Your task to perform on an android device: check battery use Image 0: 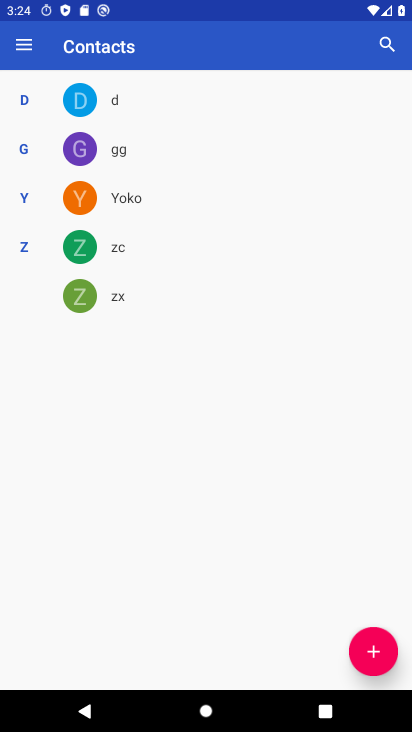
Step 0: press home button
Your task to perform on an android device: check battery use Image 1: 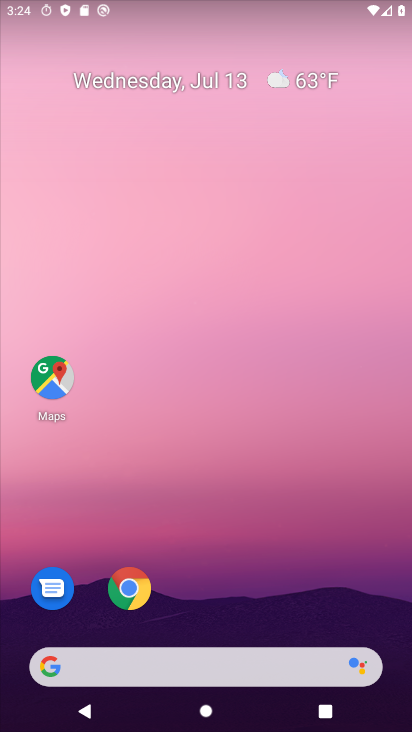
Step 1: drag from (260, 387) to (315, 104)
Your task to perform on an android device: check battery use Image 2: 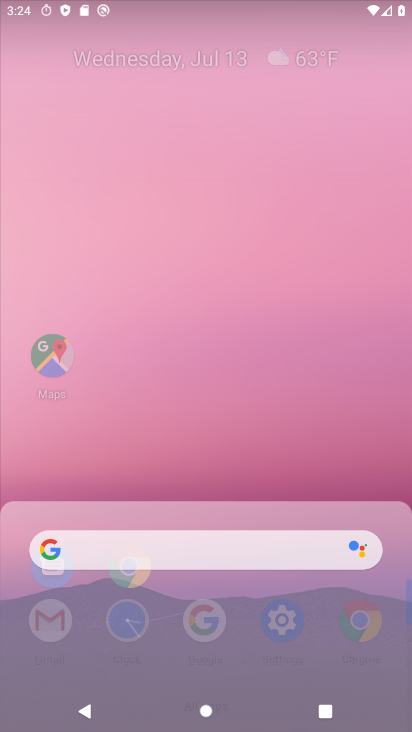
Step 2: drag from (268, 532) to (260, 140)
Your task to perform on an android device: check battery use Image 3: 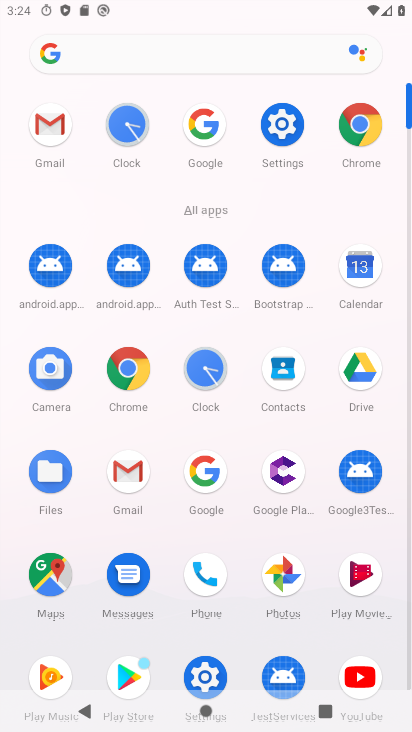
Step 3: drag from (281, 591) to (231, 183)
Your task to perform on an android device: check battery use Image 4: 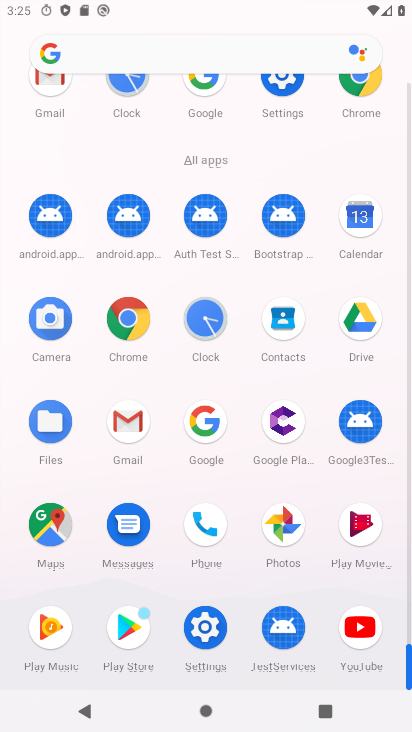
Step 4: drag from (277, 173) to (266, 464)
Your task to perform on an android device: check battery use Image 5: 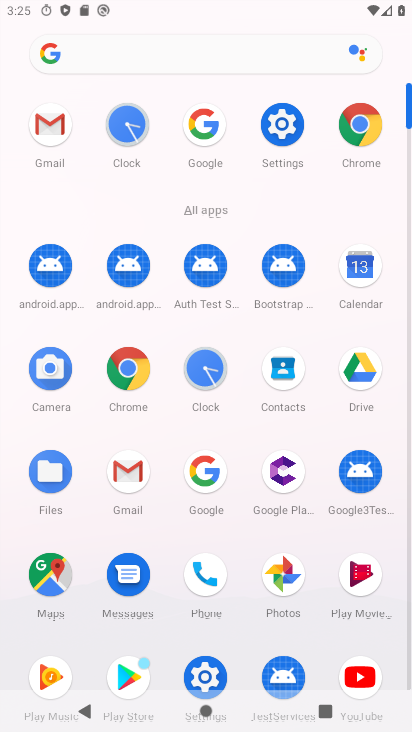
Step 5: click (290, 163)
Your task to perform on an android device: check battery use Image 6: 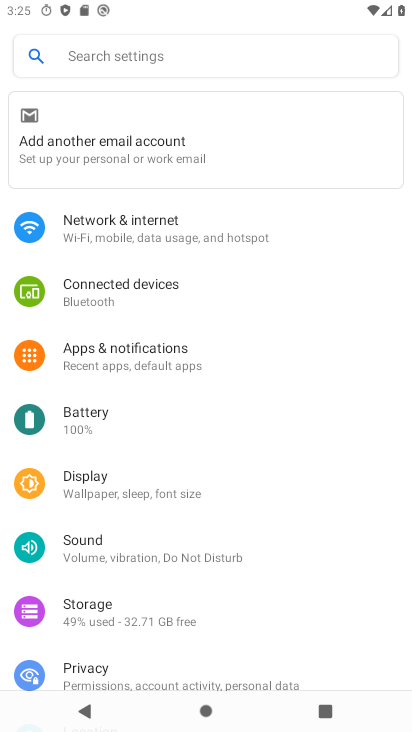
Step 6: click (69, 423)
Your task to perform on an android device: check battery use Image 7: 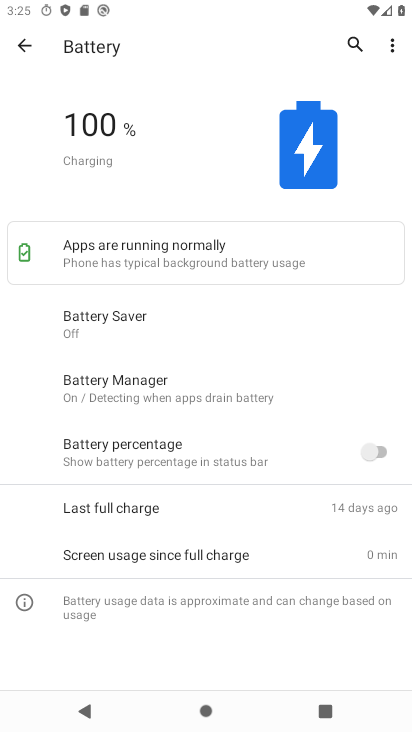
Step 7: task complete